Your task to perform on an android device: turn off notifications settings in the gmail app Image 0: 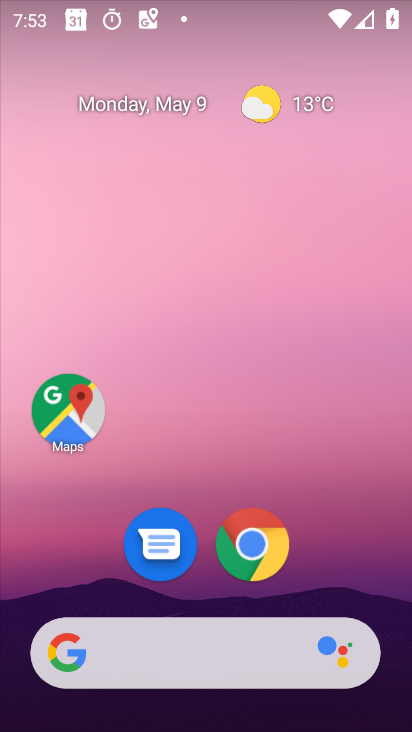
Step 0: drag from (393, 503) to (321, 96)
Your task to perform on an android device: turn off notifications settings in the gmail app Image 1: 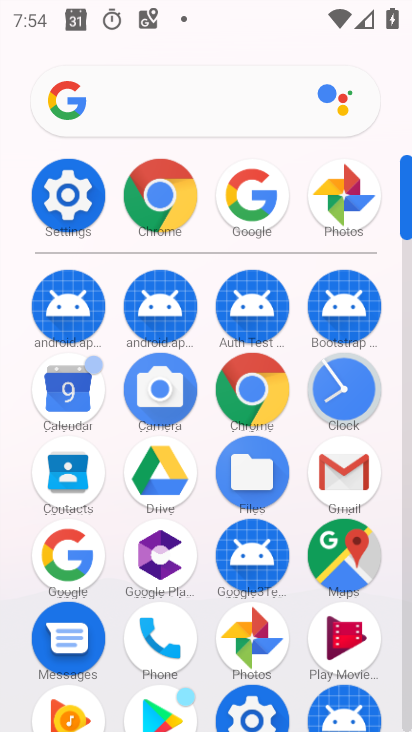
Step 1: click (328, 469)
Your task to perform on an android device: turn off notifications settings in the gmail app Image 2: 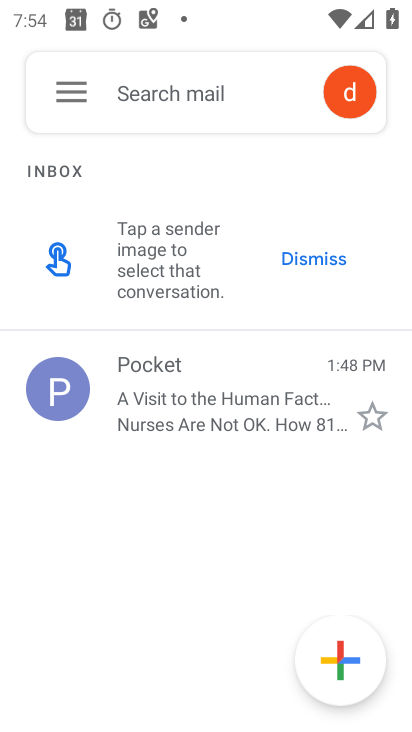
Step 2: click (70, 107)
Your task to perform on an android device: turn off notifications settings in the gmail app Image 3: 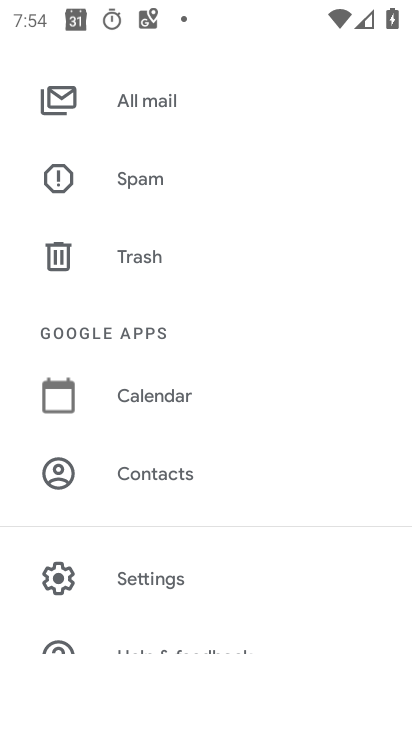
Step 3: drag from (243, 586) to (217, 241)
Your task to perform on an android device: turn off notifications settings in the gmail app Image 4: 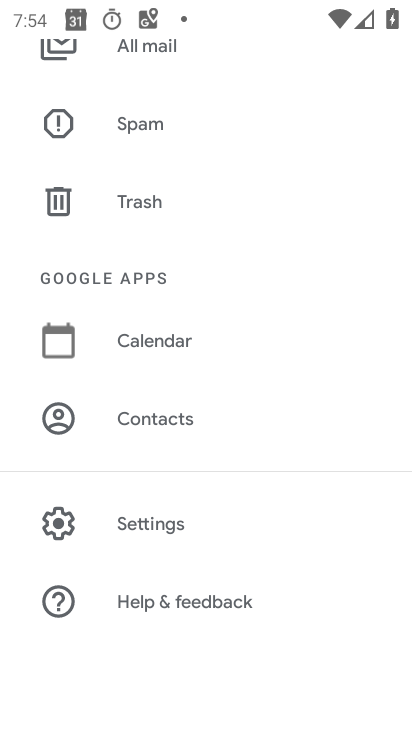
Step 4: click (160, 527)
Your task to perform on an android device: turn off notifications settings in the gmail app Image 5: 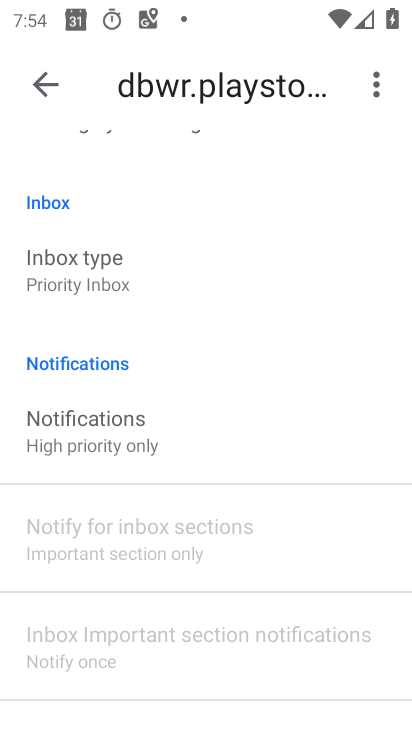
Step 5: click (113, 432)
Your task to perform on an android device: turn off notifications settings in the gmail app Image 6: 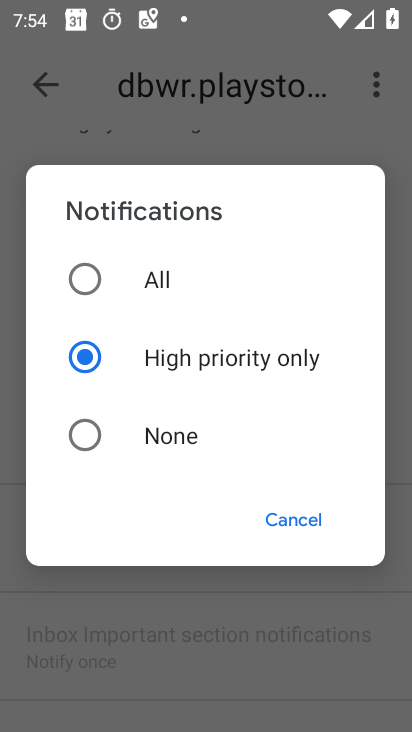
Step 6: click (102, 438)
Your task to perform on an android device: turn off notifications settings in the gmail app Image 7: 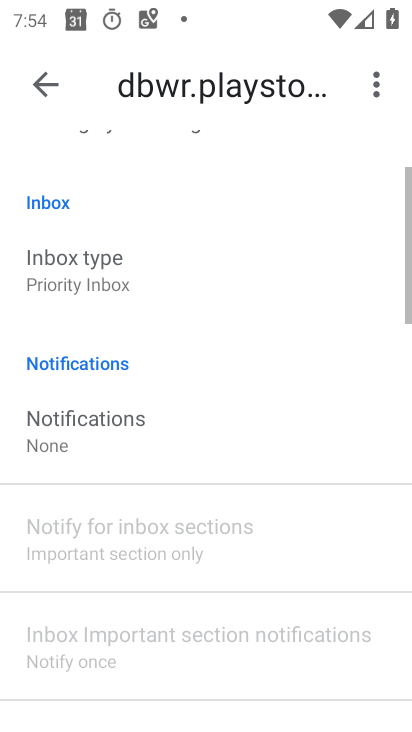
Step 7: task complete